Your task to perform on an android device: Play the last video I watched on Youtube Image 0: 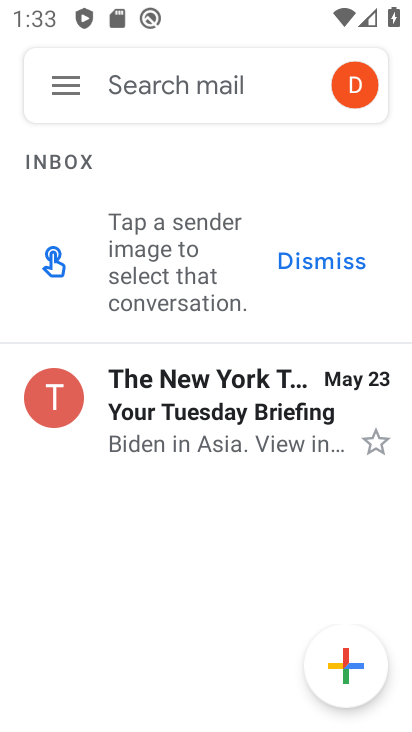
Step 0: press home button
Your task to perform on an android device: Play the last video I watched on Youtube Image 1: 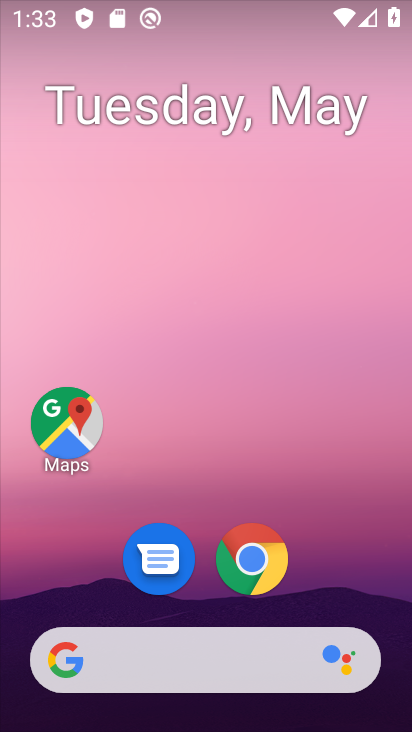
Step 1: drag from (393, 639) to (264, 39)
Your task to perform on an android device: Play the last video I watched on Youtube Image 2: 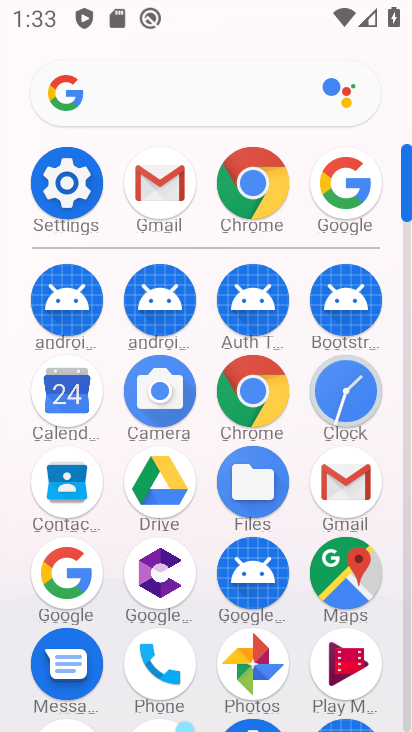
Step 2: drag from (211, 675) to (193, 200)
Your task to perform on an android device: Play the last video I watched on Youtube Image 3: 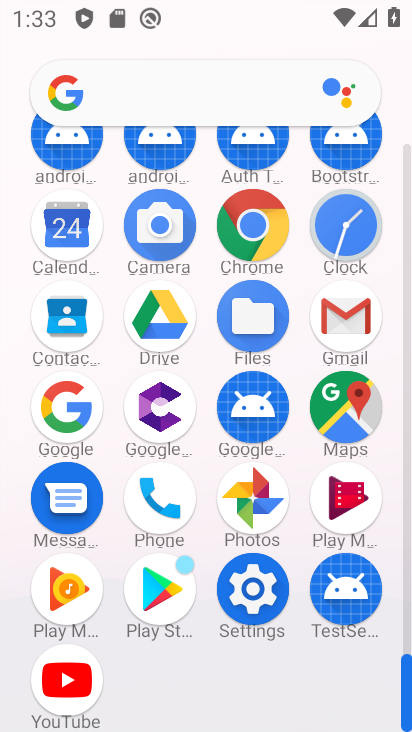
Step 3: click (71, 677)
Your task to perform on an android device: Play the last video I watched on Youtube Image 4: 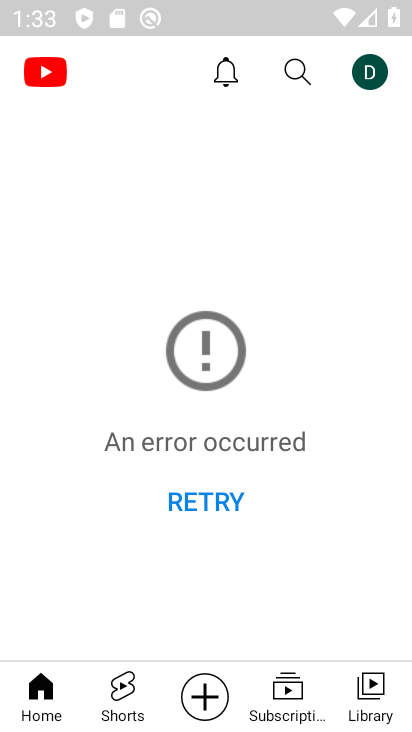
Step 4: task complete